Your task to perform on an android device: Go to Google Image 0: 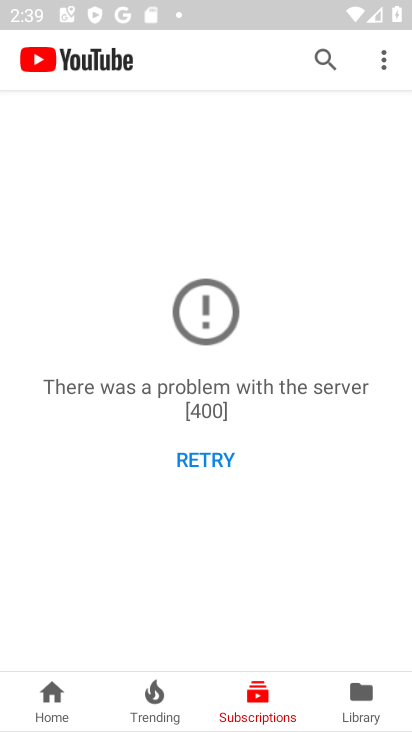
Step 0: press back button
Your task to perform on an android device: Go to Google Image 1: 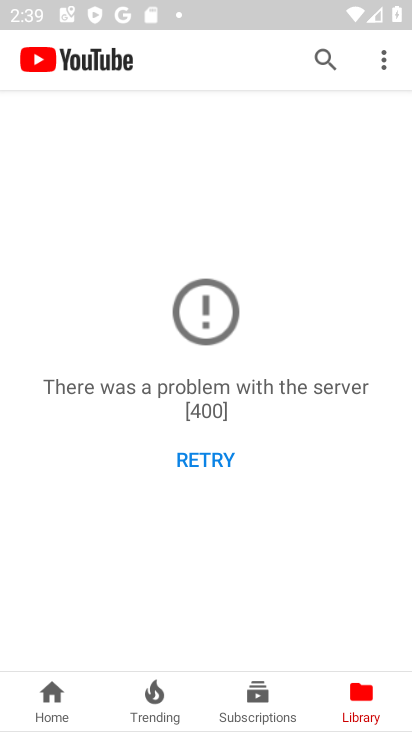
Step 1: press home button
Your task to perform on an android device: Go to Google Image 2: 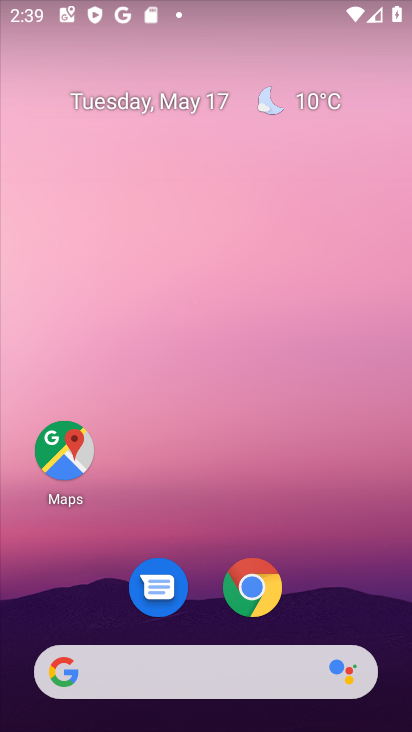
Step 2: click (251, 585)
Your task to perform on an android device: Go to Google Image 3: 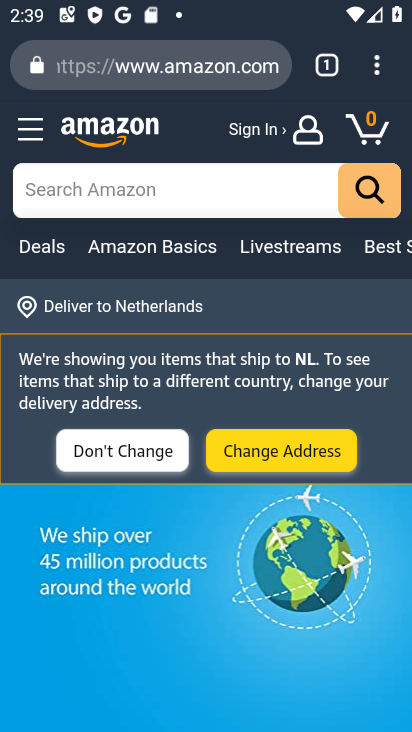
Step 3: click (201, 72)
Your task to perform on an android device: Go to Google Image 4: 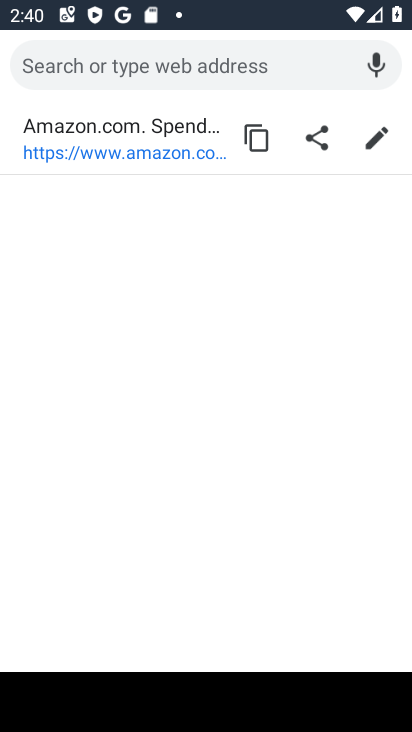
Step 4: type " Google"
Your task to perform on an android device: Go to Google Image 5: 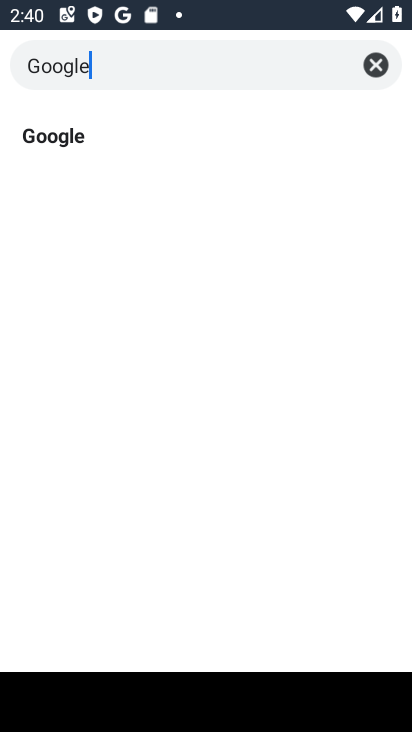
Step 5: type ""
Your task to perform on an android device: Go to Google Image 6: 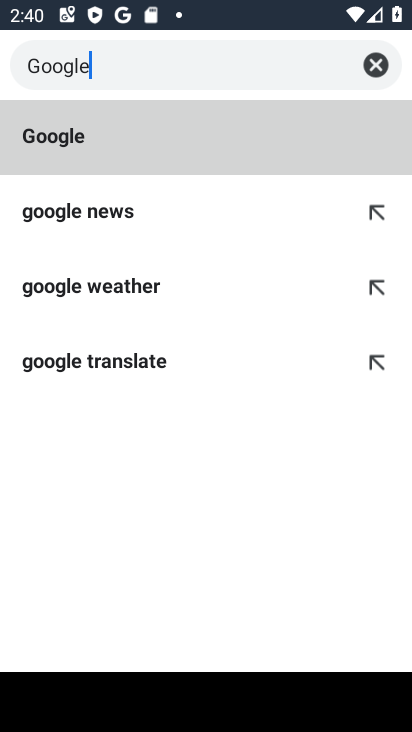
Step 6: click (151, 159)
Your task to perform on an android device: Go to Google Image 7: 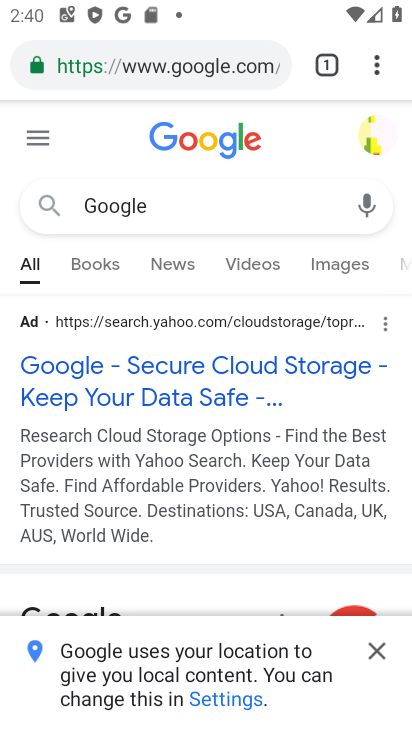
Step 7: drag from (172, 504) to (172, 186)
Your task to perform on an android device: Go to Google Image 8: 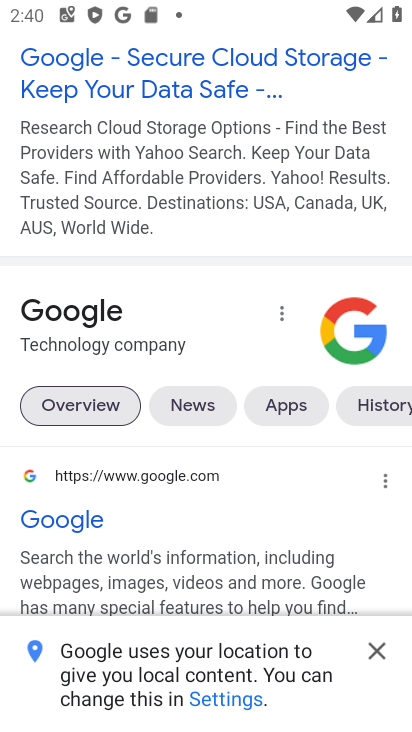
Step 8: click (62, 520)
Your task to perform on an android device: Go to Google Image 9: 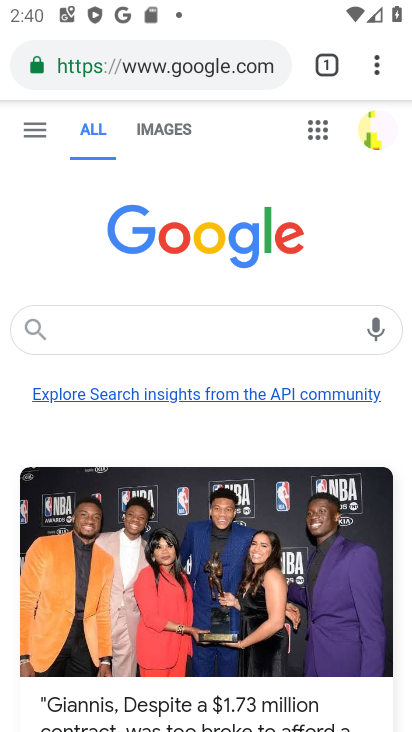
Step 9: task complete